Your task to perform on an android device: turn on priority inbox in the gmail app Image 0: 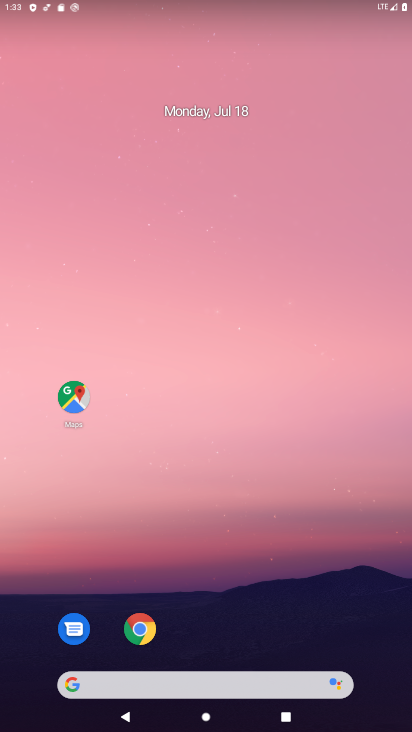
Step 0: press home button
Your task to perform on an android device: turn on priority inbox in the gmail app Image 1: 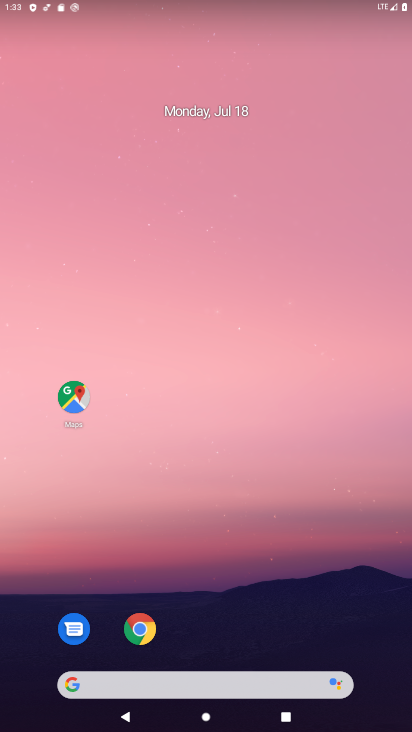
Step 1: drag from (218, 649) to (231, 26)
Your task to perform on an android device: turn on priority inbox in the gmail app Image 2: 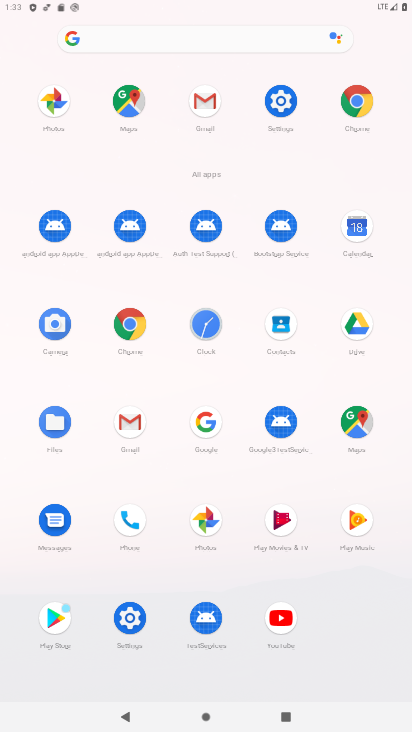
Step 2: click (203, 95)
Your task to perform on an android device: turn on priority inbox in the gmail app Image 3: 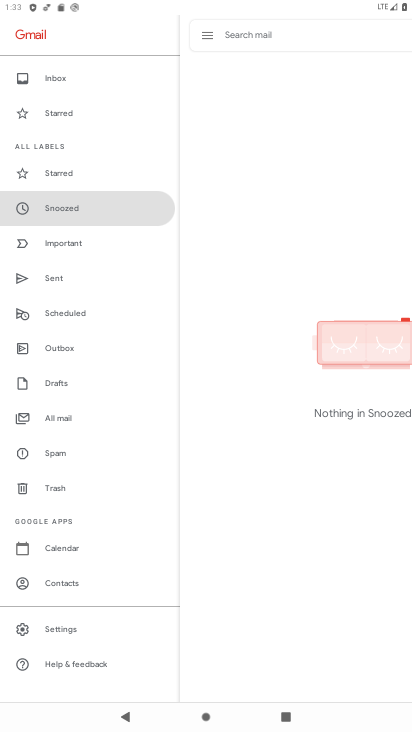
Step 3: click (81, 625)
Your task to perform on an android device: turn on priority inbox in the gmail app Image 4: 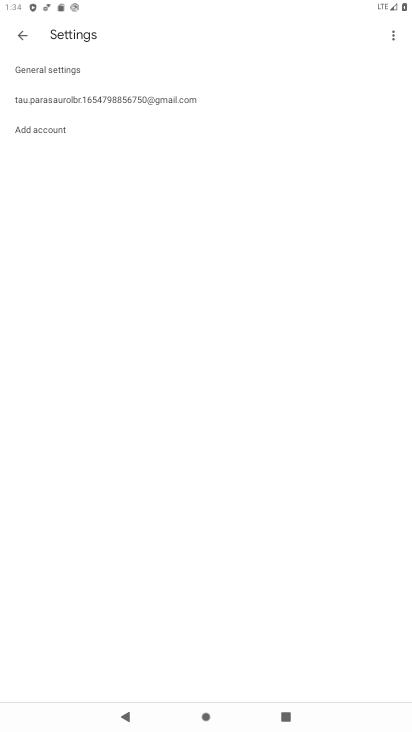
Step 4: click (143, 93)
Your task to perform on an android device: turn on priority inbox in the gmail app Image 5: 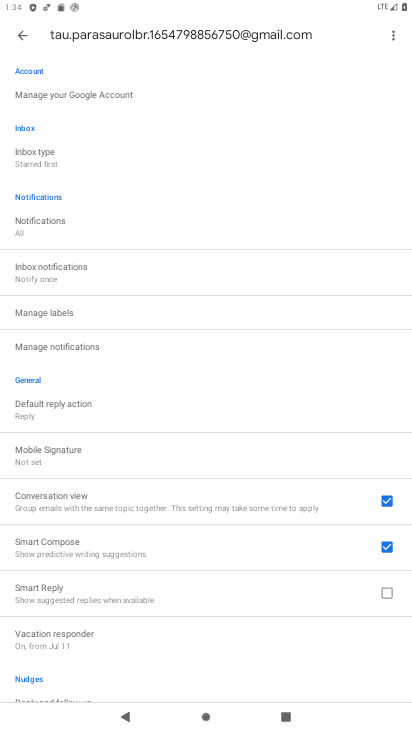
Step 5: click (69, 157)
Your task to perform on an android device: turn on priority inbox in the gmail app Image 6: 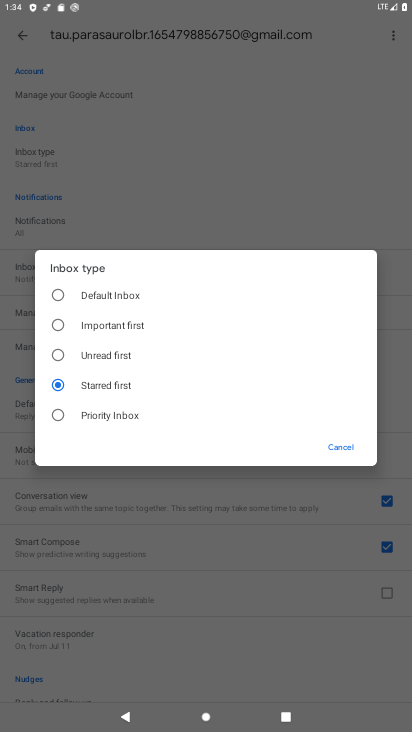
Step 6: click (56, 414)
Your task to perform on an android device: turn on priority inbox in the gmail app Image 7: 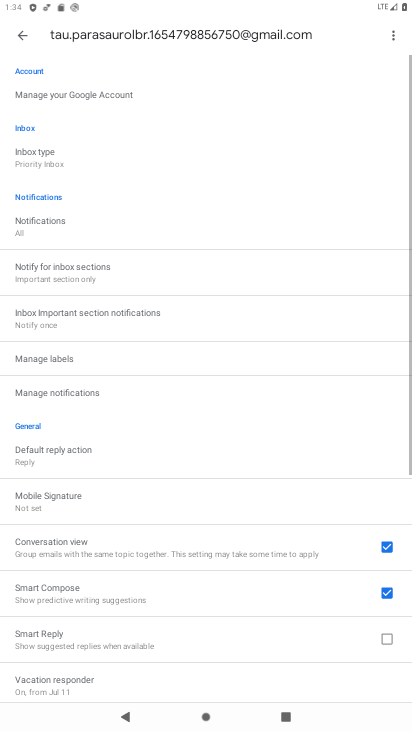
Step 7: task complete